Your task to perform on an android device: Go to ESPN.com Image 0: 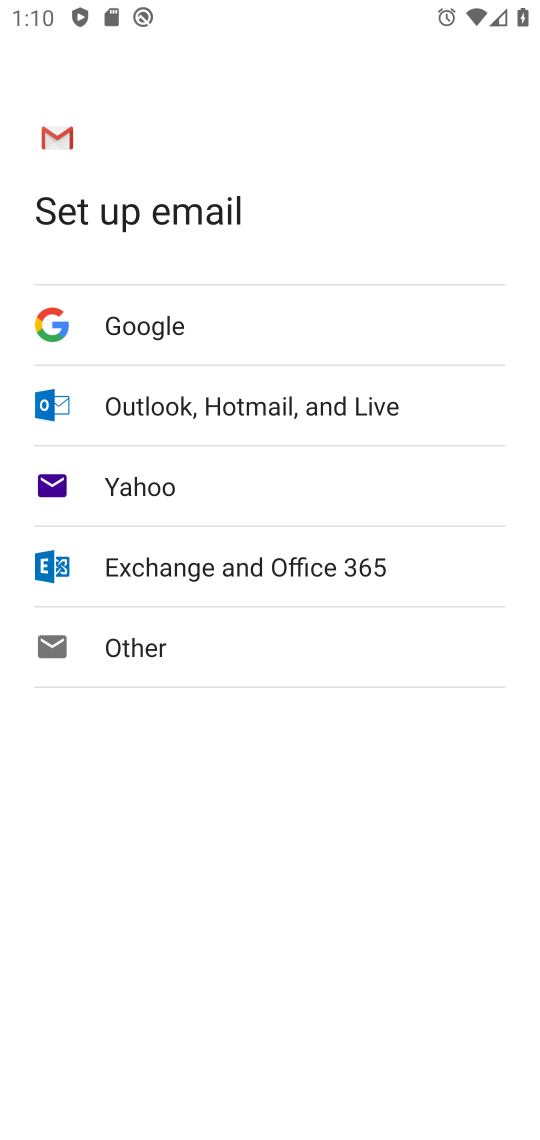
Step 0: drag from (293, 778) to (304, 558)
Your task to perform on an android device: Go to ESPN.com Image 1: 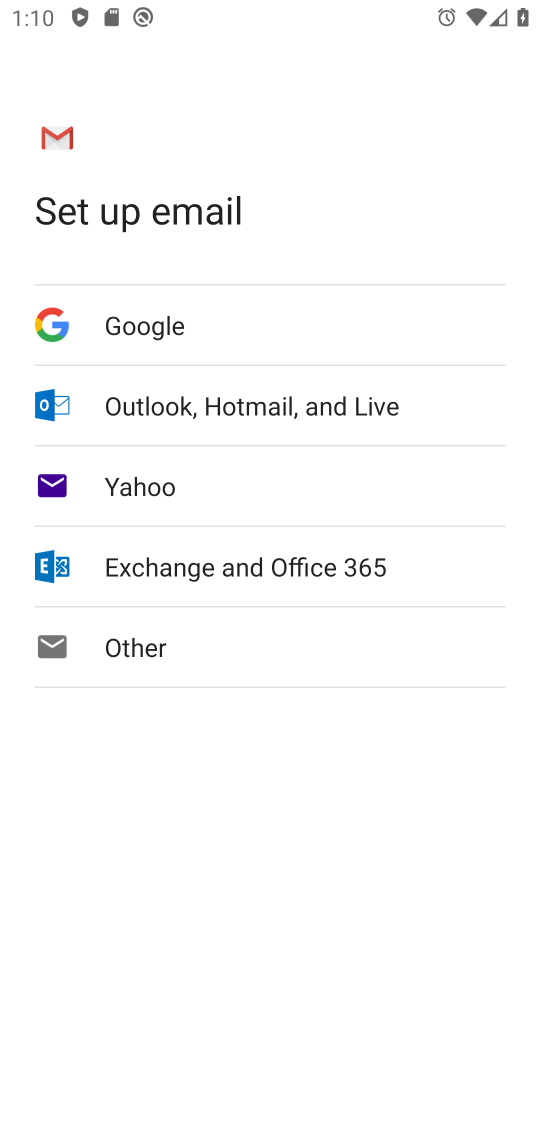
Step 1: drag from (268, 914) to (297, 491)
Your task to perform on an android device: Go to ESPN.com Image 2: 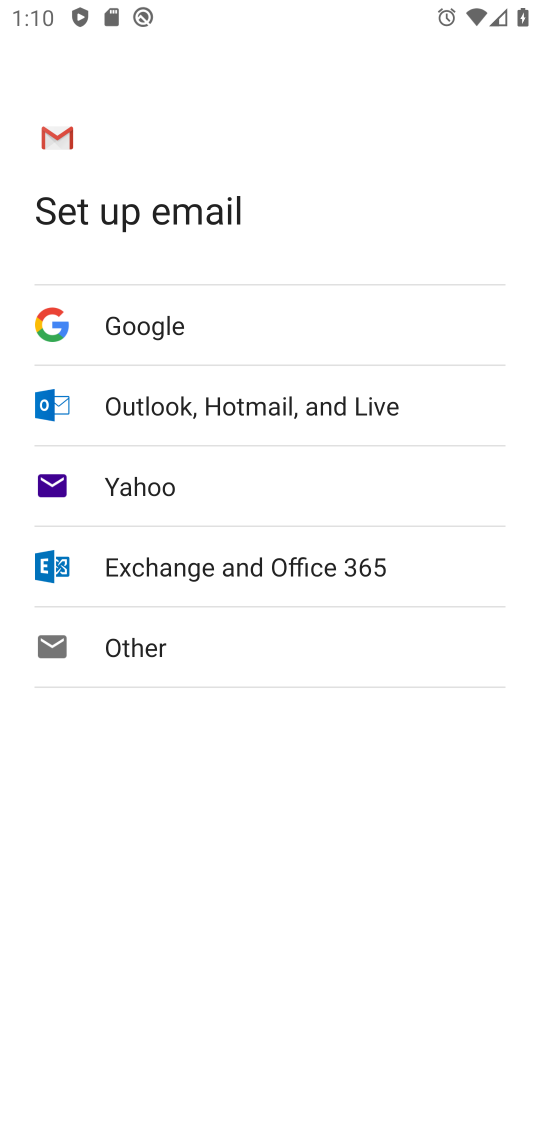
Step 2: press home button
Your task to perform on an android device: Go to ESPN.com Image 3: 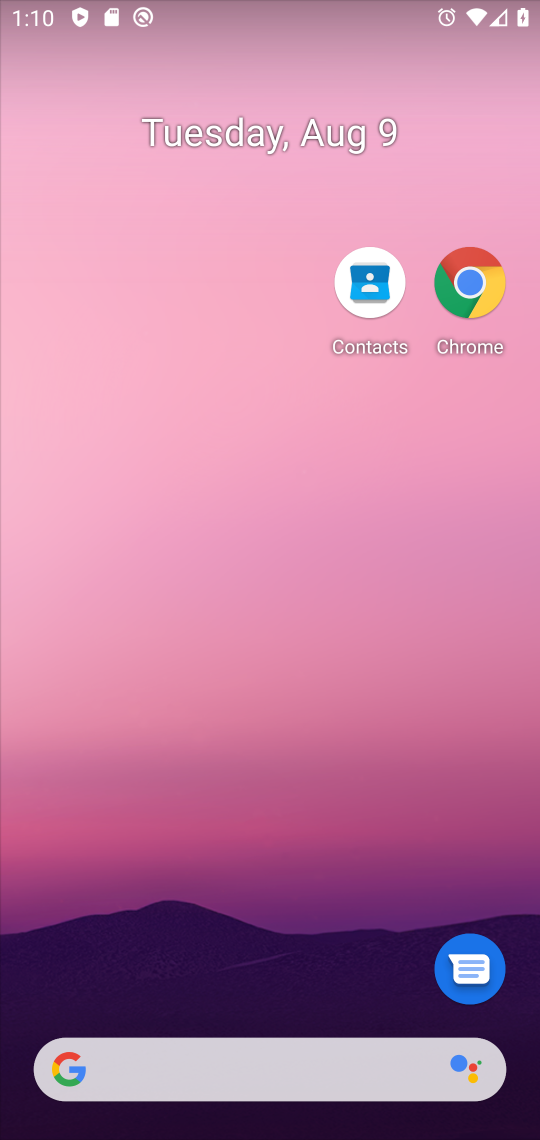
Step 3: click (454, 266)
Your task to perform on an android device: Go to ESPN.com Image 4: 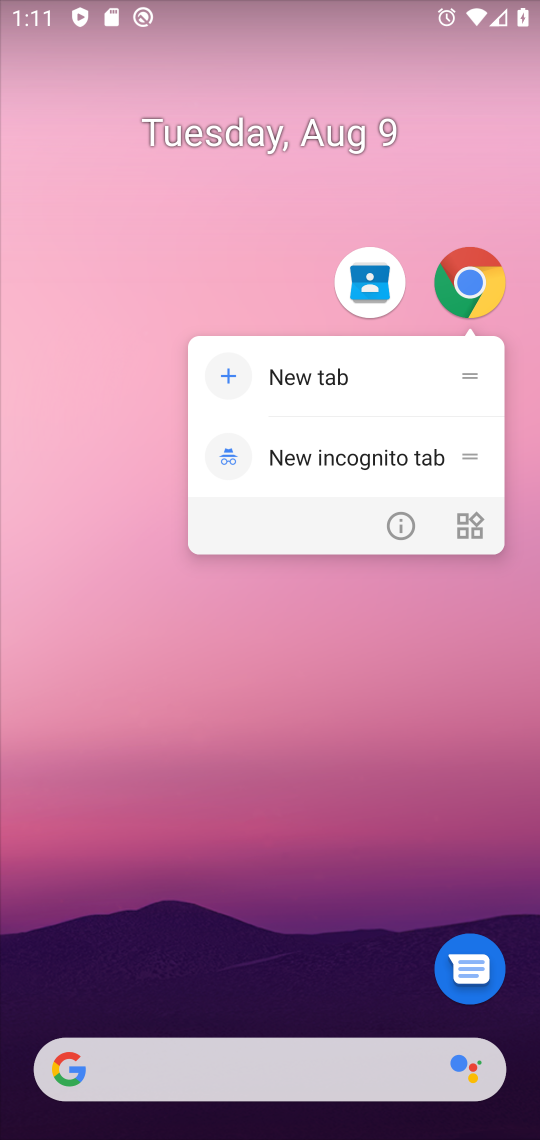
Step 4: click (384, 529)
Your task to perform on an android device: Go to ESPN.com Image 5: 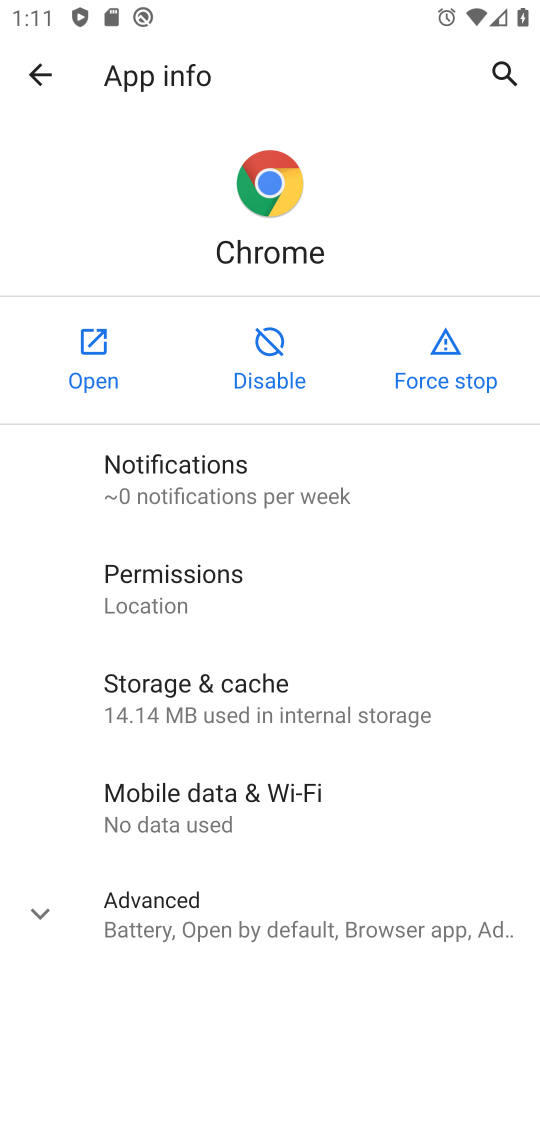
Step 5: click (101, 356)
Your task to perform on an android device: Go to ESPN.com Image 6: 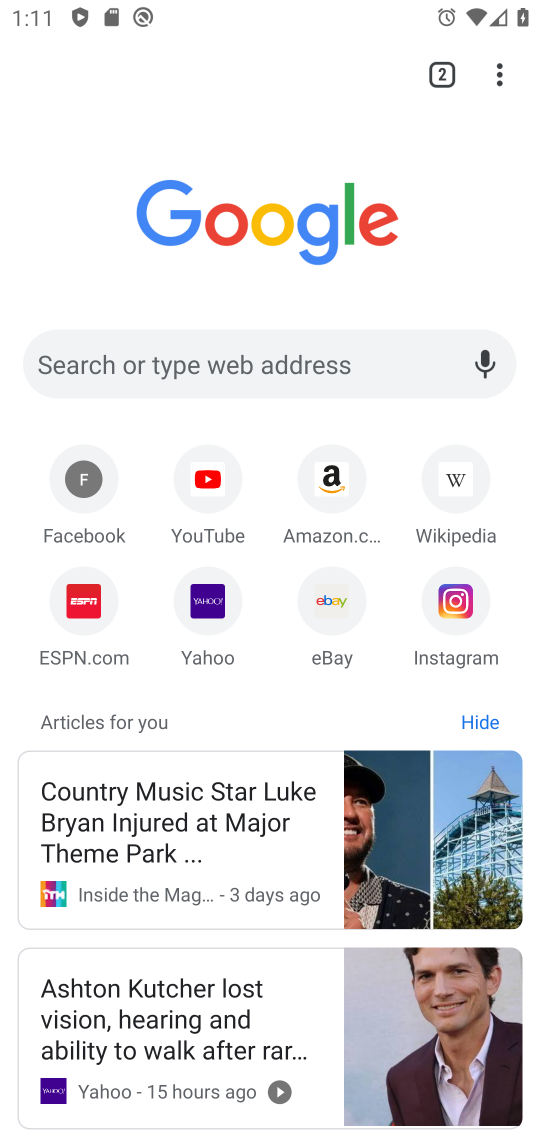
Step 6: click (137, 359)
Your task to perform on an android device: Go to ESPN.com Image 7: 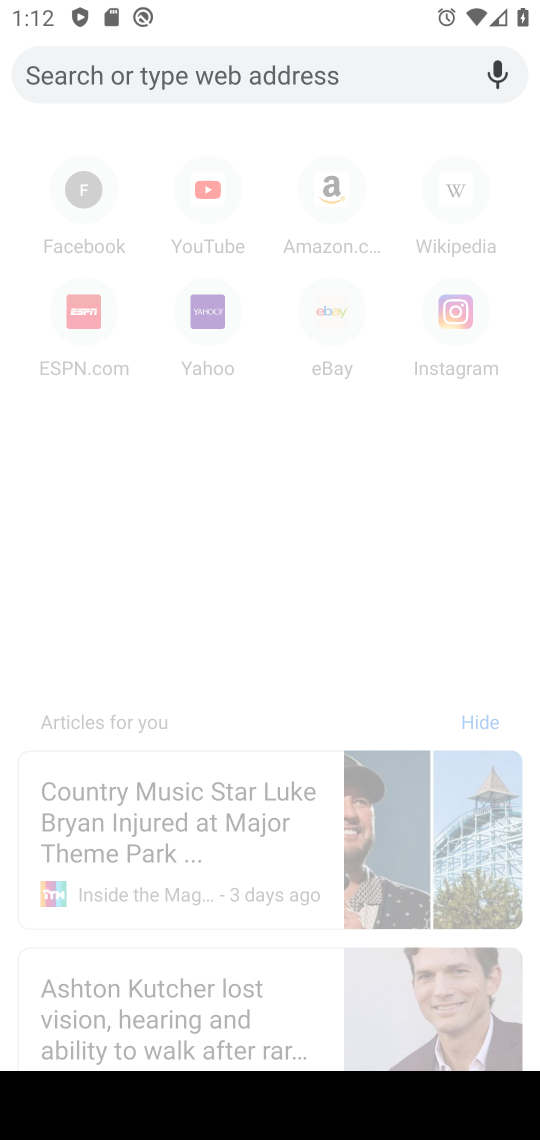
Step 7: type "ESPN.com"
Your task to perform on an android device: Go to ESPN.com Image 8: 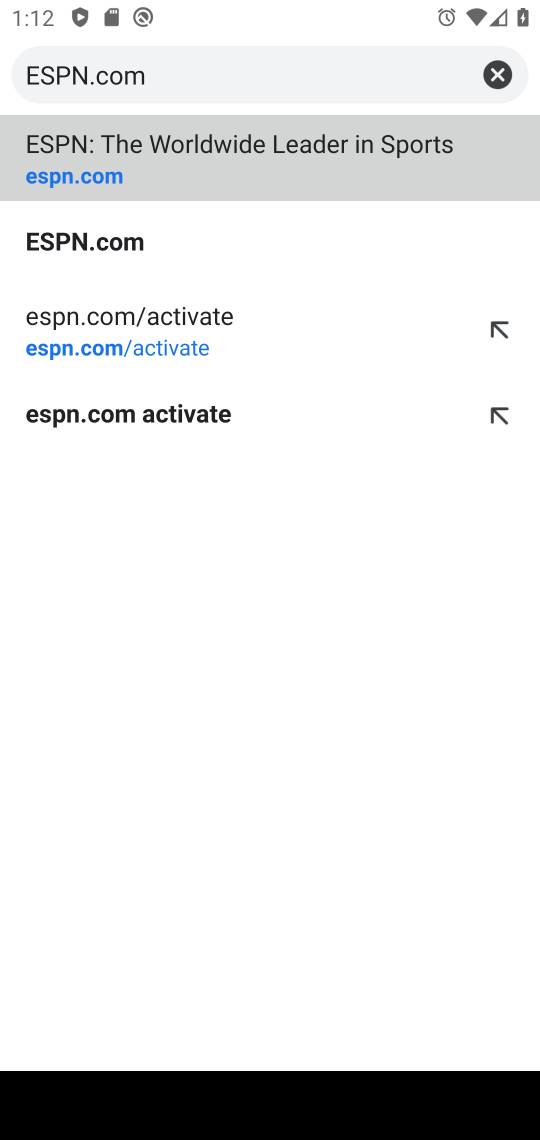
Step 8: click (77, 184)
Your task to perform on an android device: Go to ESPN.com Image 9: 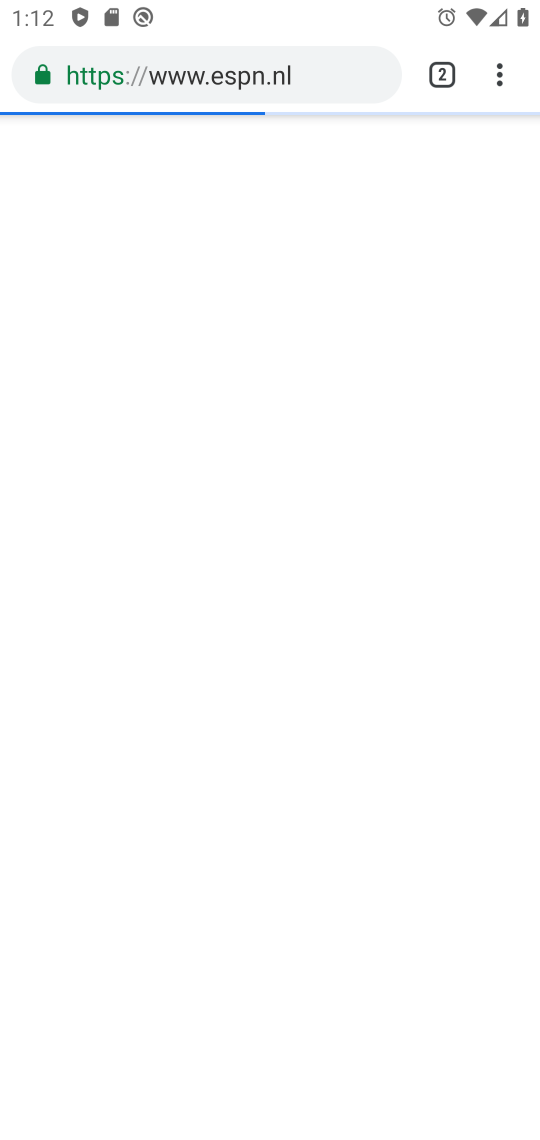
Step 9: task complete